Your task to perform on an android device: toggle data saver in the chrome app Image 0: 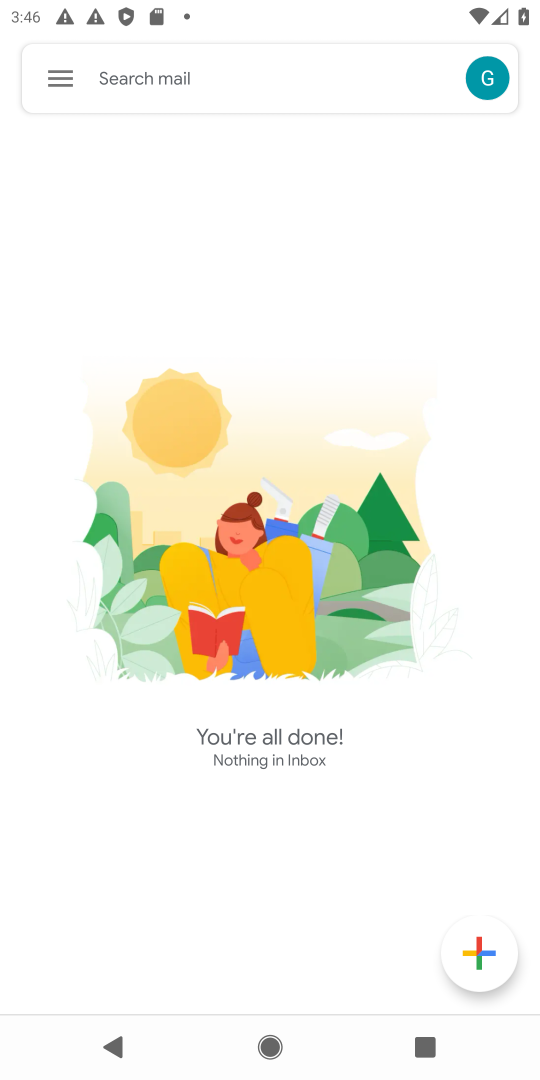
Step 0: press home button
Your task to perform on an android device: toggle data saver in the chrome app Image 1: 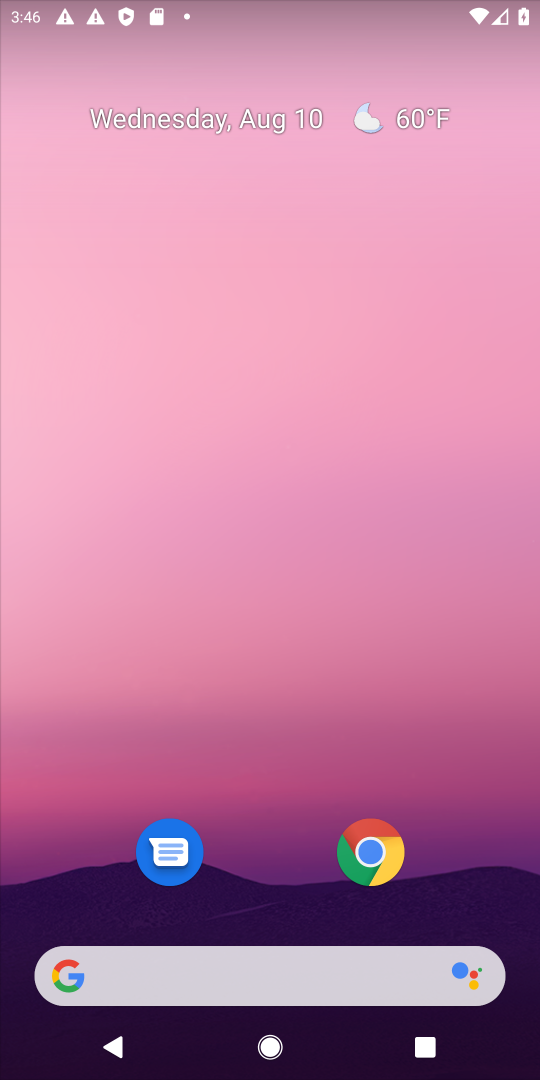
Step 1: drag from (281, 842) to (458, 94)
Your task to perform on an android device: toggle data saver in the chrome app Image 2: 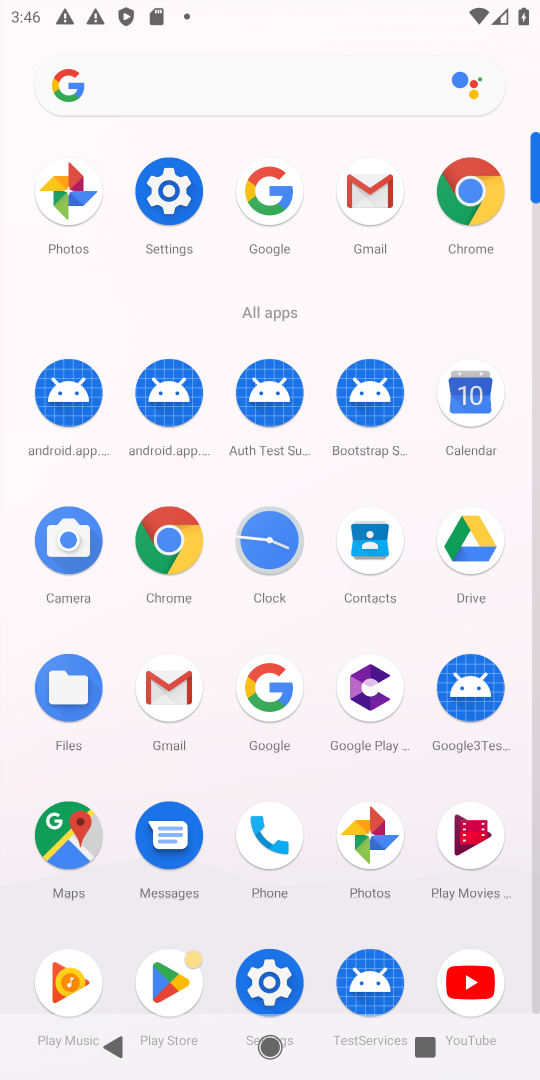
Step 2: click (158, 534)
Your task to perform on an android device: toggle data saver in the chrome app Image 3: 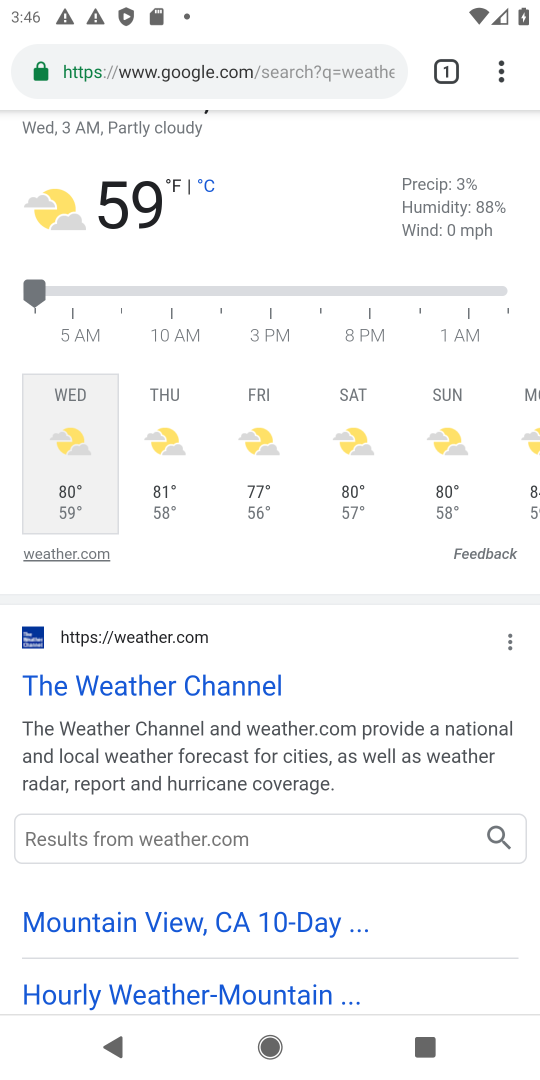
Step 3: drag from (510, 63) to (232, 788)
Your task to perform on an android device: toggle data saver in the chrome app Image 4: 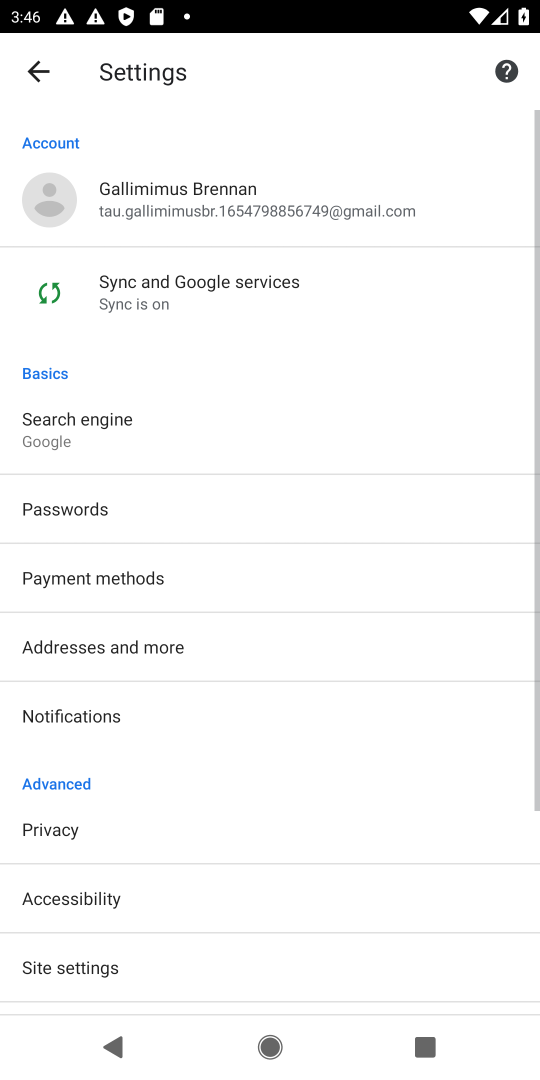
Step 4: drag from (262, 915) to (407, 197)
Your task to perform on an android device: toggle data saver in the chrome app Image 5: 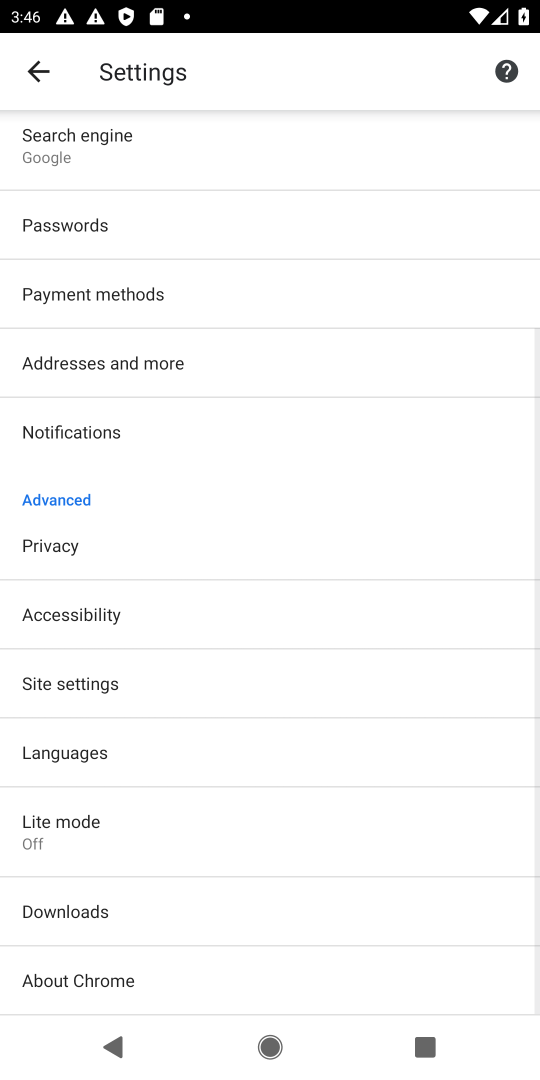
Step 5: click (102, 814)
Your task to perform on an android device: toggle data saver in the chrome app Image 6: 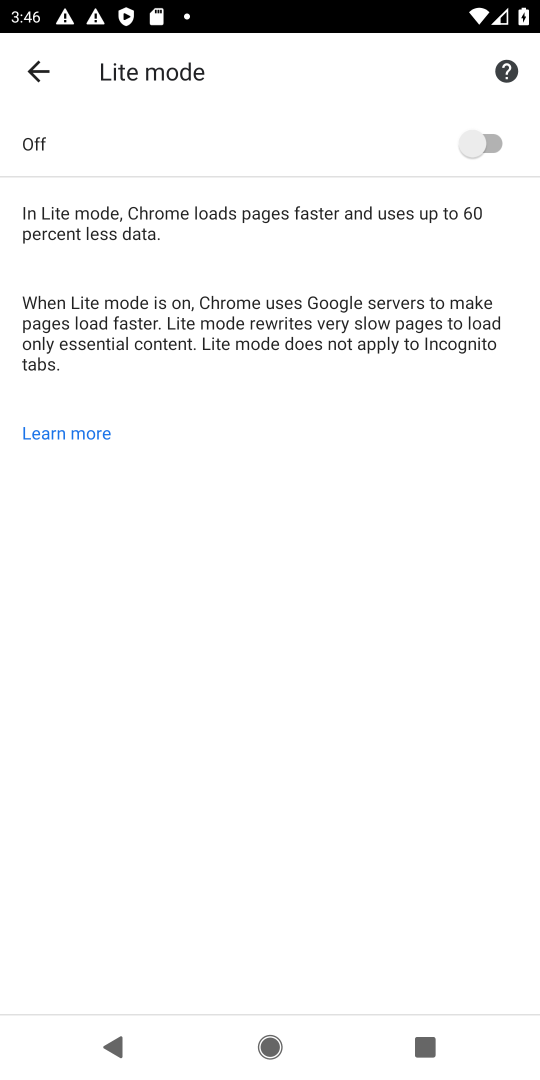
Step 6: click (484, 149)
Your task to perform on an android device: toggle data saver in the chrome app Image 7: 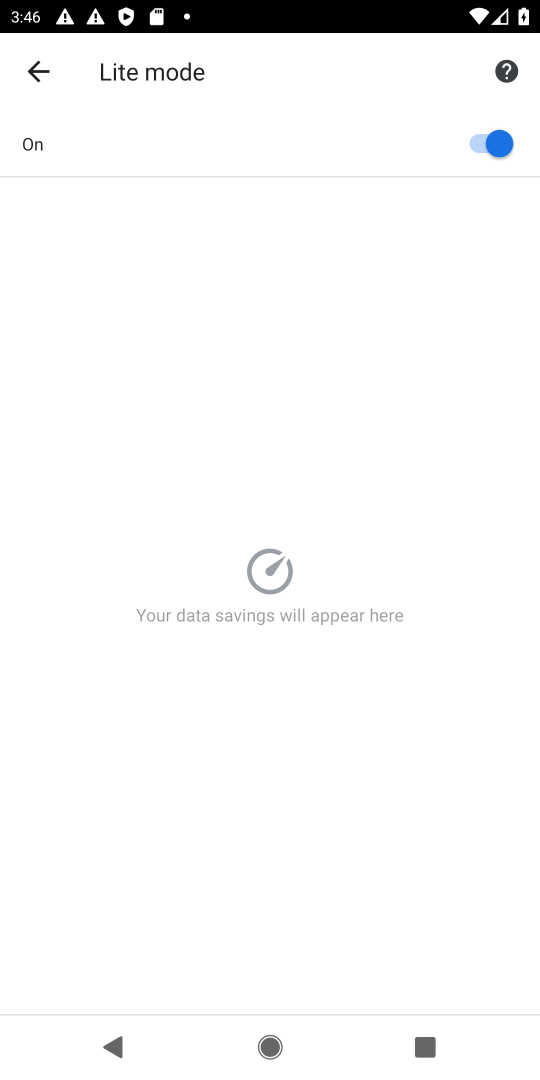
Step 7: task complete